Your task to perform on an android device: Do I have any events tomorrow? Image 0: 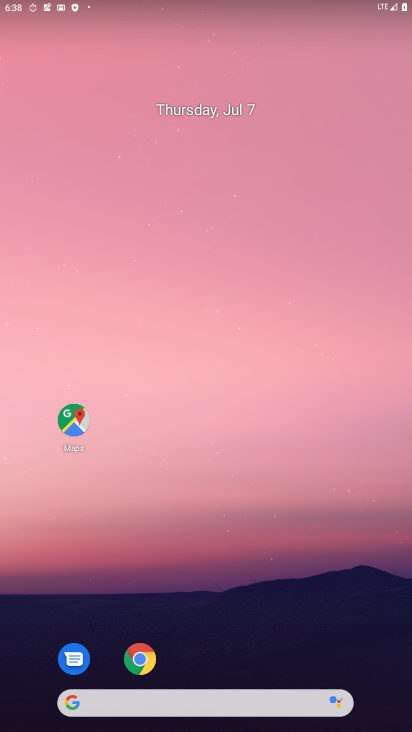
Step 0: drag from (387, 665) to (269, 8)
Your task to perform on an android device: Do I have any events tomorrow? Image 1: 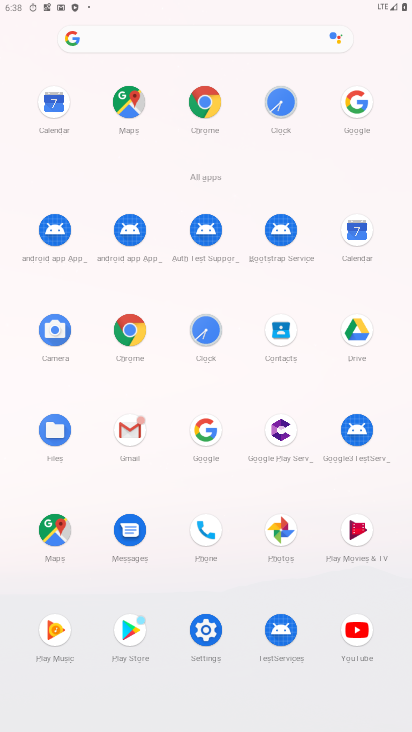
Step 1: click (360, 236)
Your task to perform on an android device: Do I have any events tomorrow? Image 2: 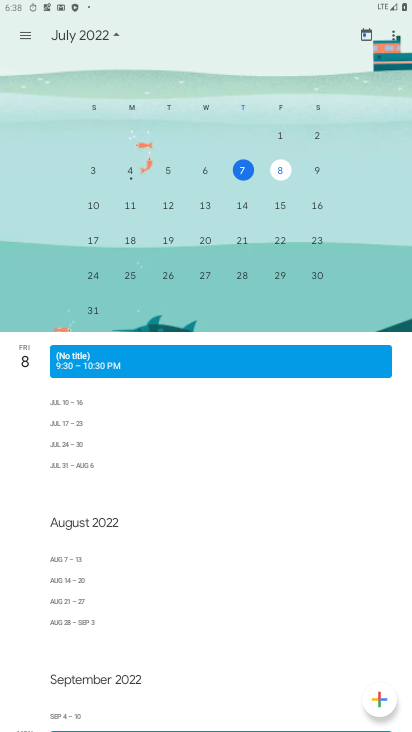
Step 2: task complete